Your task to perform on an android device: turn on the 12-hour format for clock Image 0: 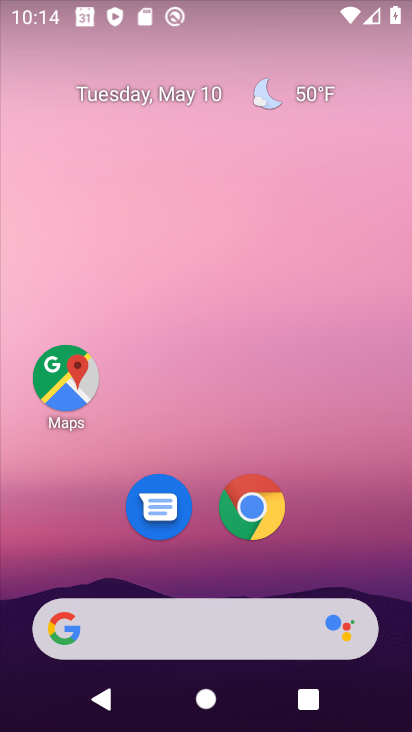
Step 0: drag from (312, 554) to (274, 222)
Your task to perform on an android device: turn on the 12-hour format for clock Image 1: 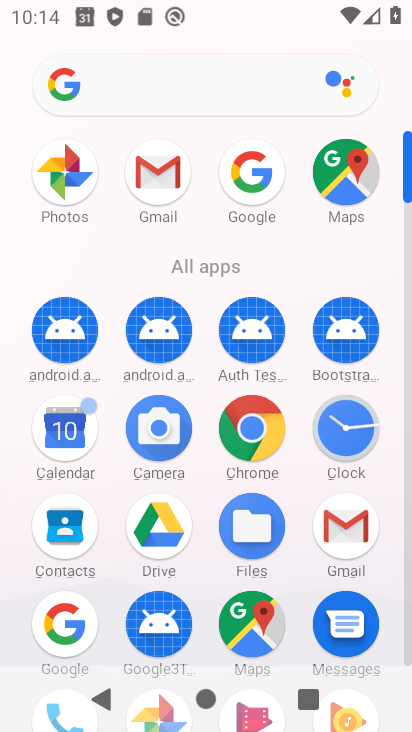
Step 1: click (337, 430)
Your task to perform on an android device: turn on the 12-hour format for clock Image 2: 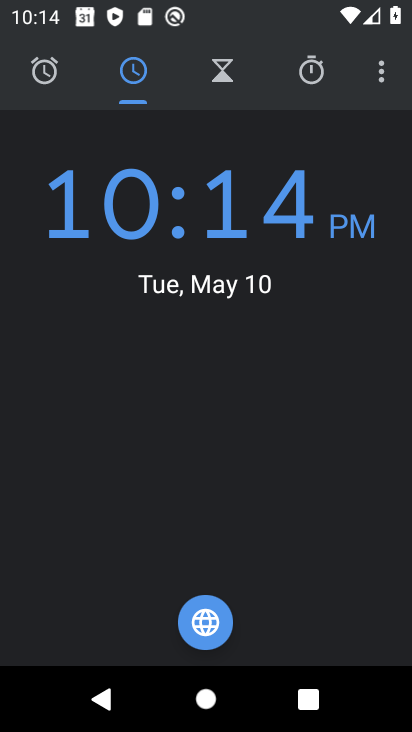
Step 2: click (374, 59)
Your task to perform on an android device: turn on the 12-hour format for clock Image 3: 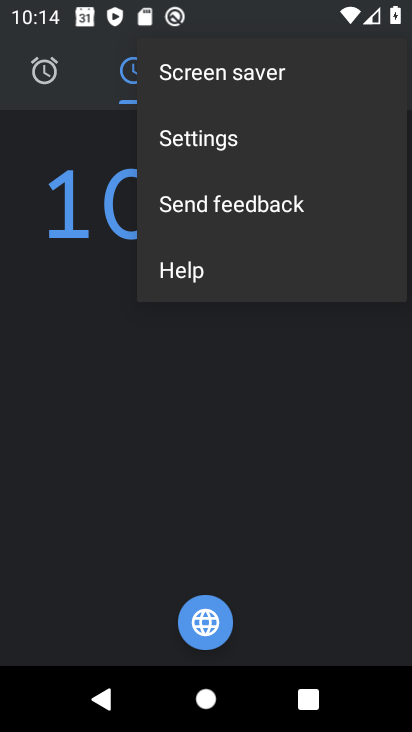
Step 3: click (235, 133)
Your task to perform on an android device: turn on the 12-hour format for clock Image 4: 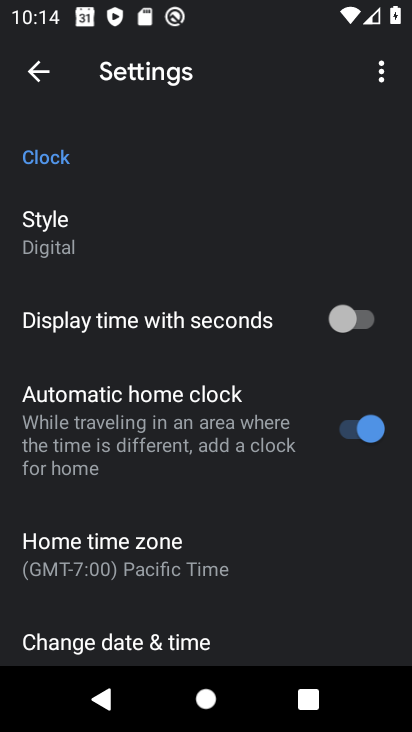
Step 4: drag from (170, 556) to (213, 372)
Your task to perform on an android device: turn on the 12-hour format for clock Image 5: 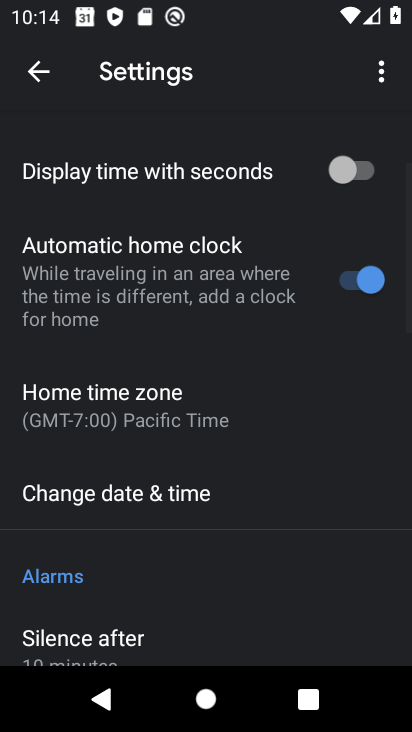
Step 5: click (214, 498)
Your task to perform on an android device: turn on the 12-hour format for clock Image 6: 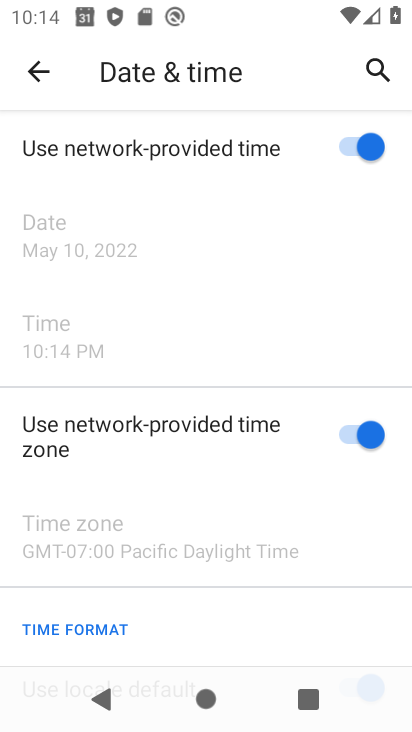
Step 6: task complete